Your task to perform on an android device: Play the last video I watched on Youtube Image 0: 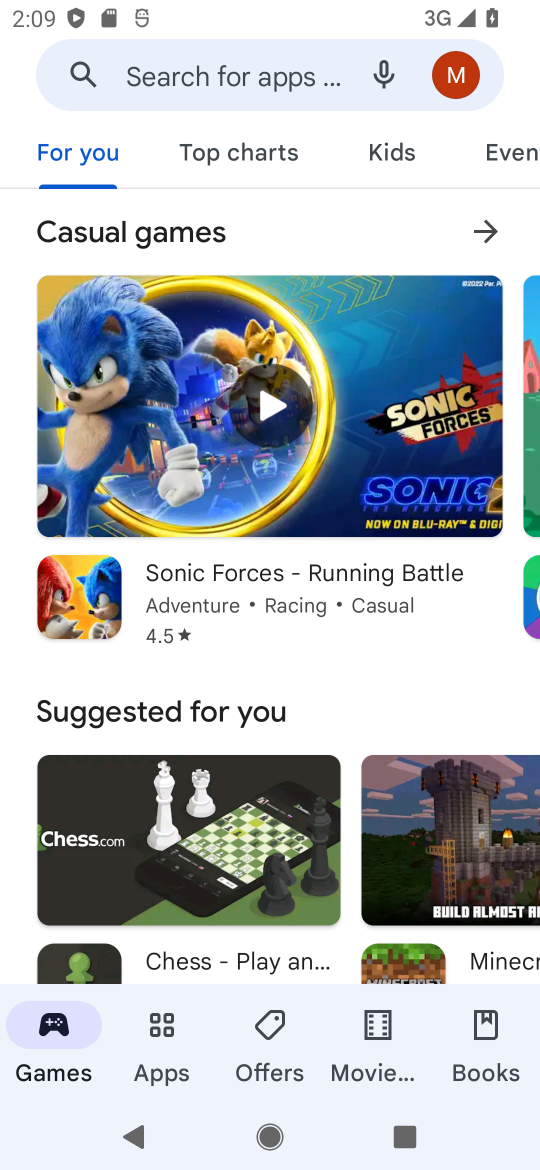
Step 0: press home button
Your task to perform on an android device: Play the last video I watched on Youtube Image 1: 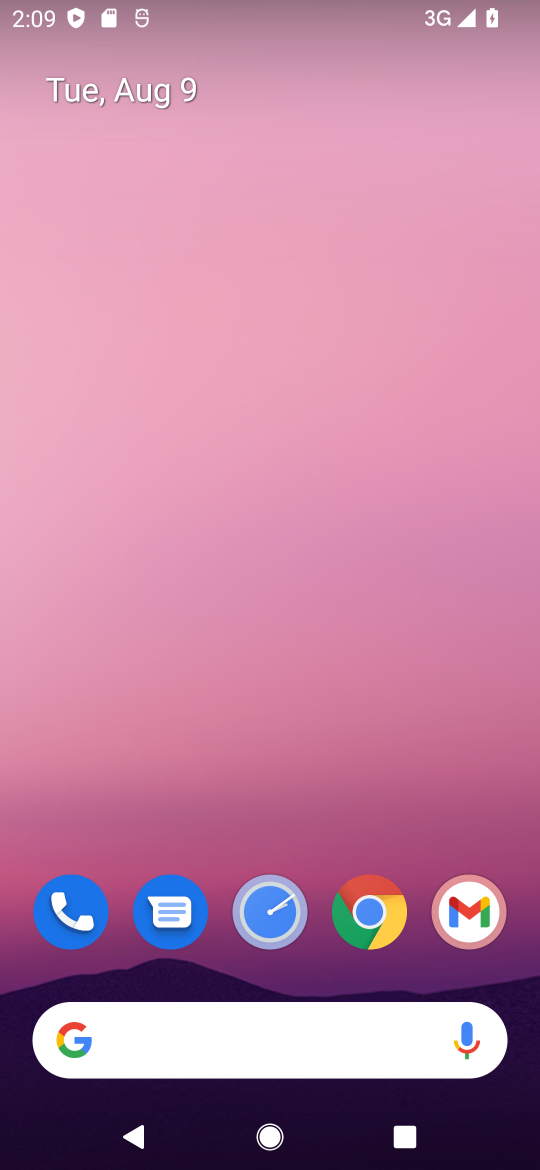
Step 1: drag from (303, 796) to (205, 17)
Your task to perform on an android device: Play the last video I watched on Youtube Image 2: 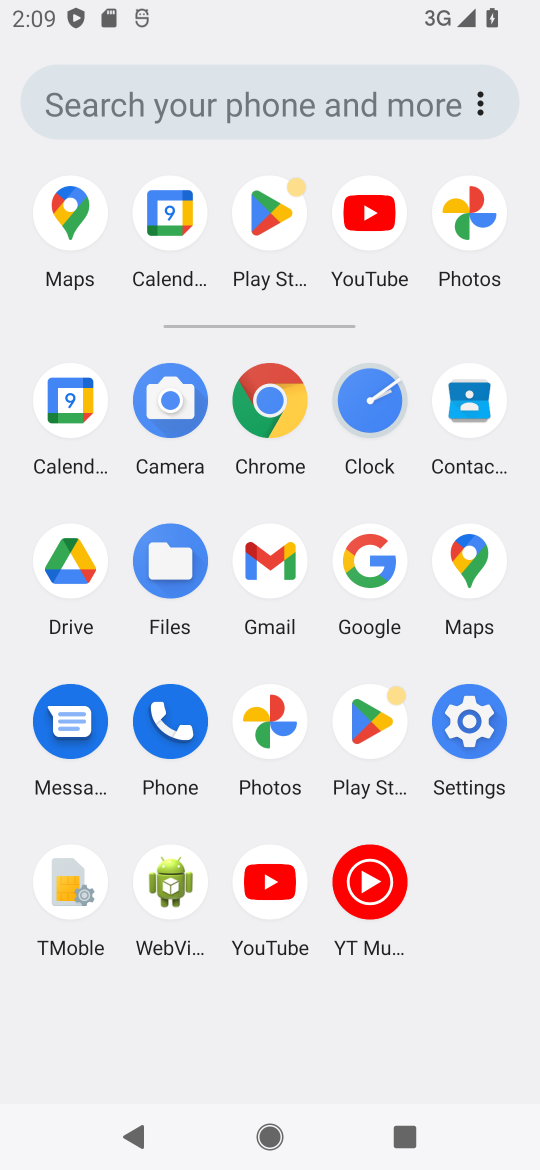
Step 2: click (273, 886)
Your task to perform on an android device: Play the last video I watched on Youtube Image 3: 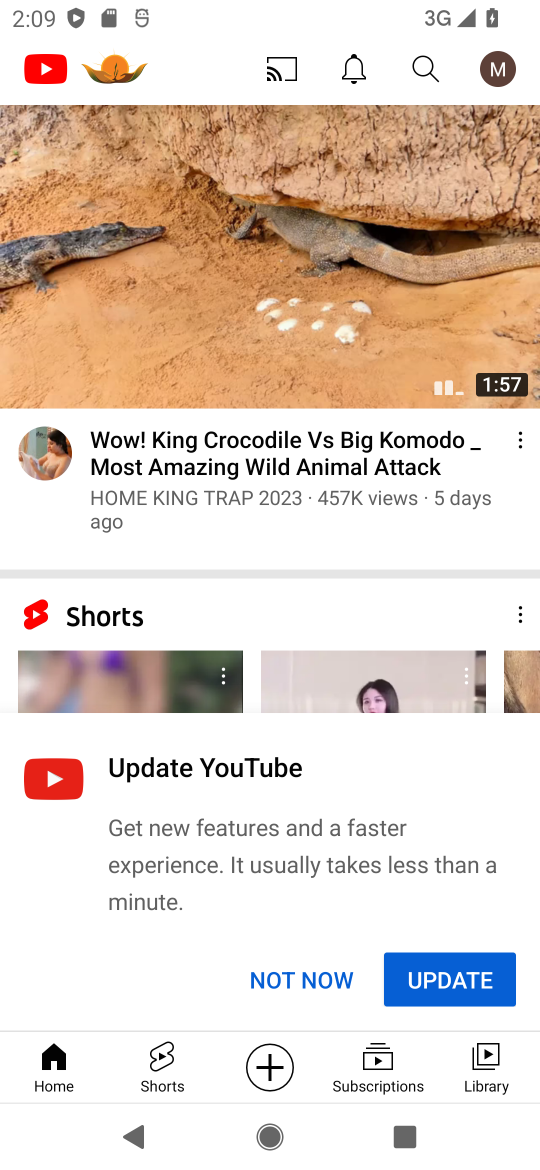
Step 3: click (479, 1063)
Your task to perform on an android device: Play the last video I watched on Youtube Image 4: 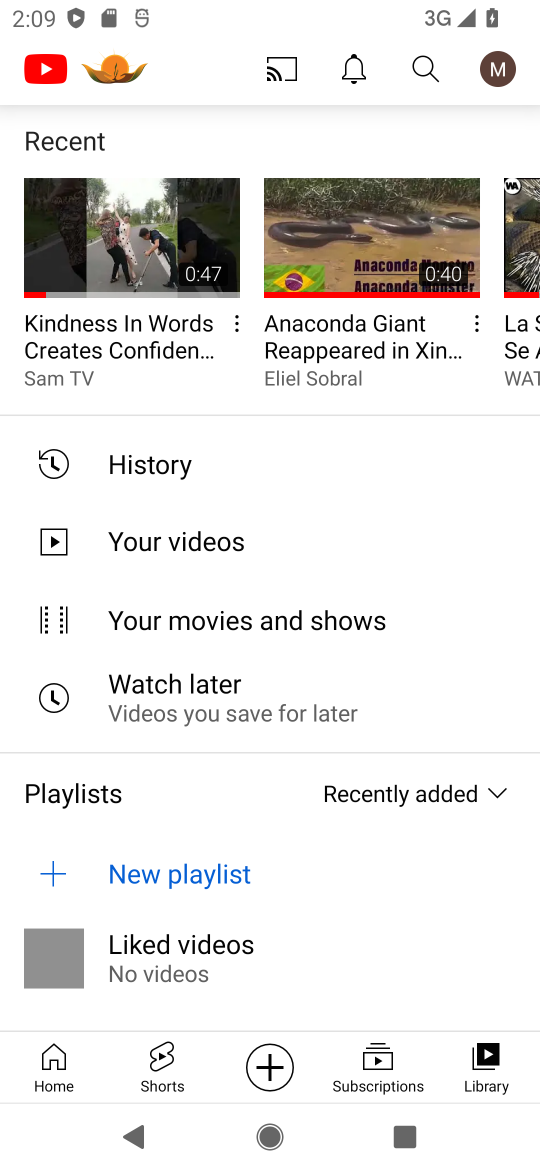
Step 4: click (136, 258)
Your task to perform on an android device: Play the last video I watched on Youtube Image 5: 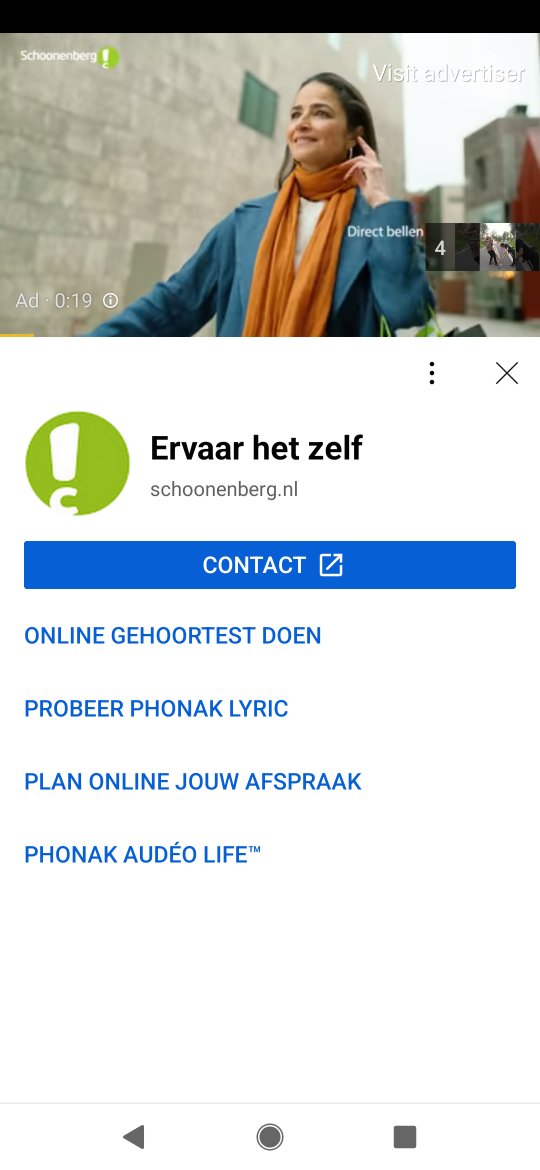
Step 5: task complete